Your task to perform on an android device: Go to Reddit.com Image 0: 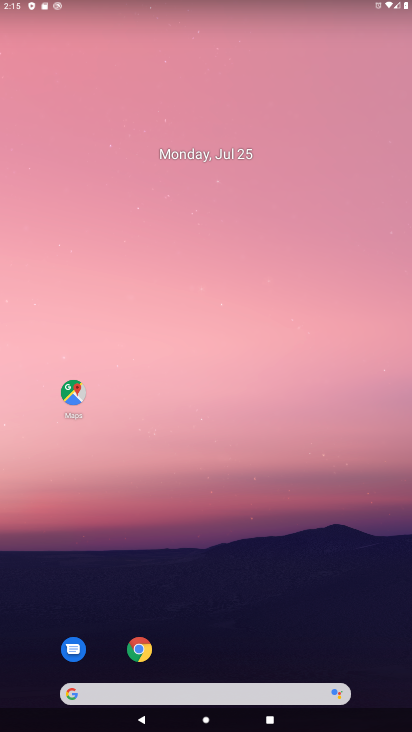
Step 0: click (140, 650)
Your task to perform on an android device: Go to Reddit.com Image 1: 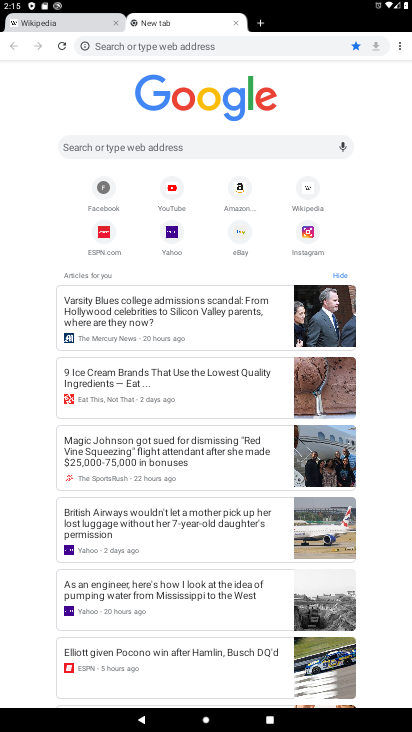
Step 1: click (141, 141)
Your task to perform on an android device: Go to Reddit.com Image 2: 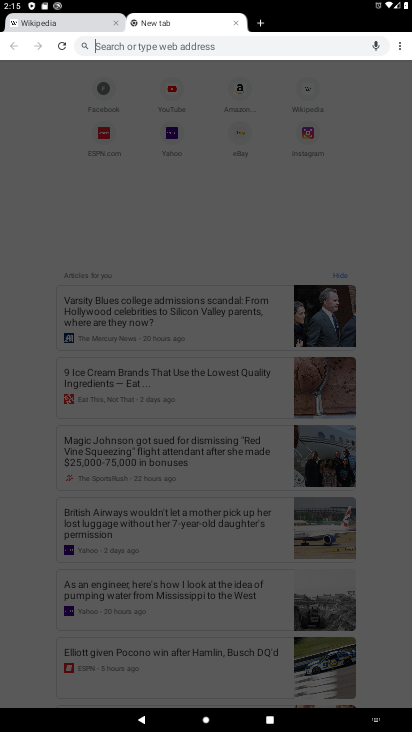
Step 2: type "reddit.com"
Your task to perform on an android device: Go to Reddit.com Image 3: 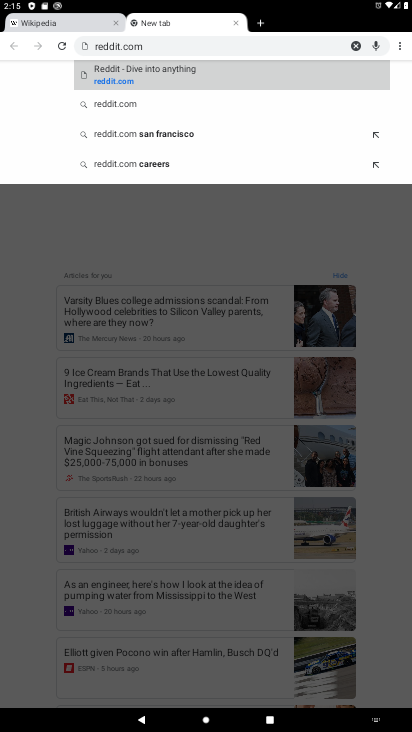
Step 3: click (124, 71)
Your task to perform on an android device: Go to Reddit.com Image 4: 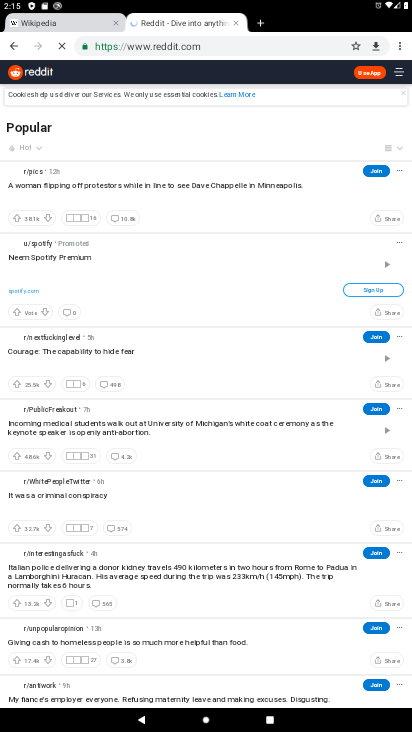
Step 4: task complete